Your task to perform on an android device: Open the calendar app, open the side menu, and click the "Day" option Image 0: 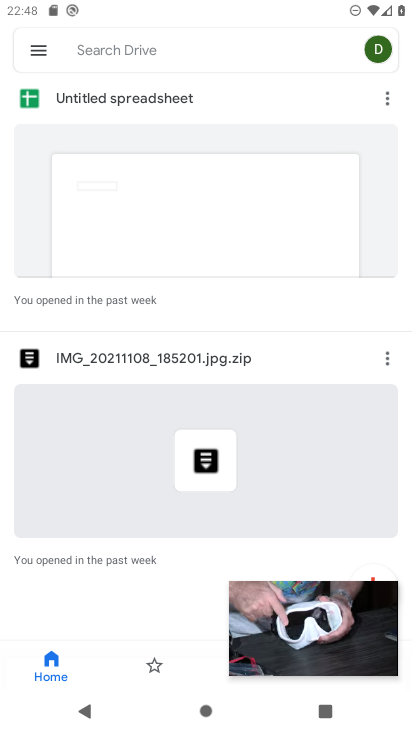
Step 0: press home button
Your task to perform on an android device: Open the calendar app, open the side menu, and click the "Day" option Image 1: 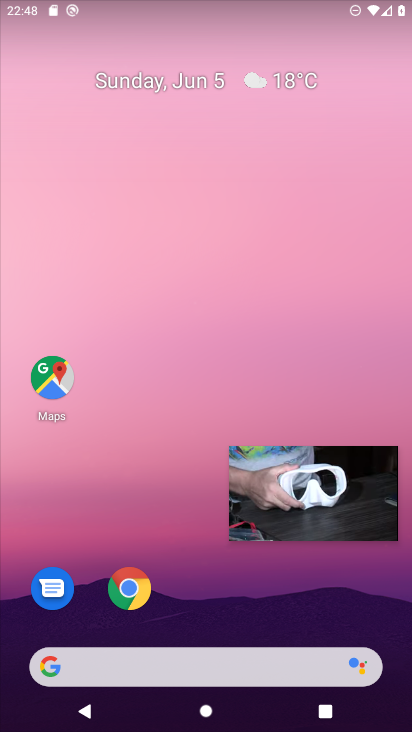
Step 1: drag from (269, 601) to (311, 74)
Your task to perform on an android device: Open the calendar app, open the side menu, and click the "Day" option Image 2: 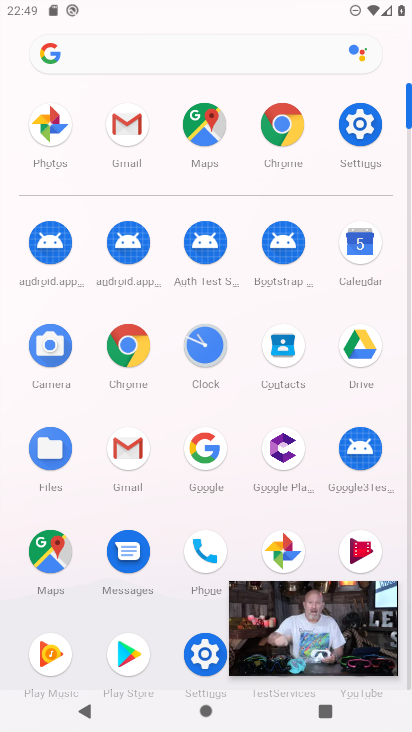
Step 2: click (359, 251)
Your task to perform on an android device: Open the calendar app, open the side menu, and click the "Day" option Image 3: 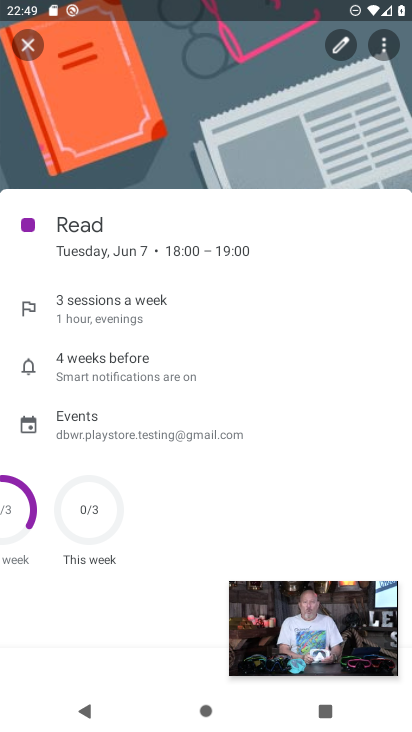
Step 3: press back button
Your task to perform on an android device: Open the calendar app, open the side menu, and click the "Day" option Image 4: 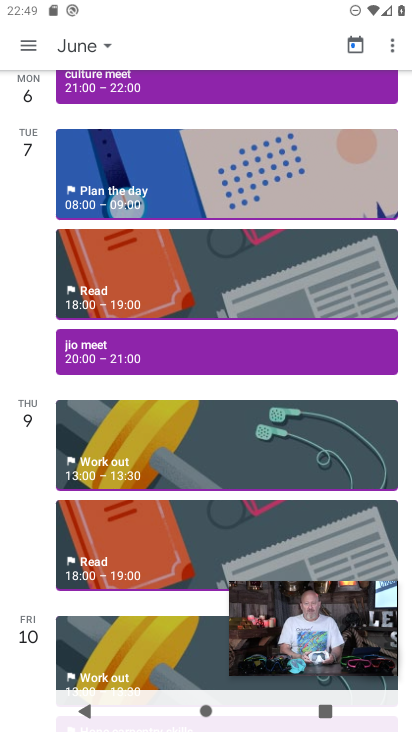
Step 4: click (23, 49)
Your task to perform on an android device: Open the calendar app, open the side menu, and click the "Day" option Image 5: 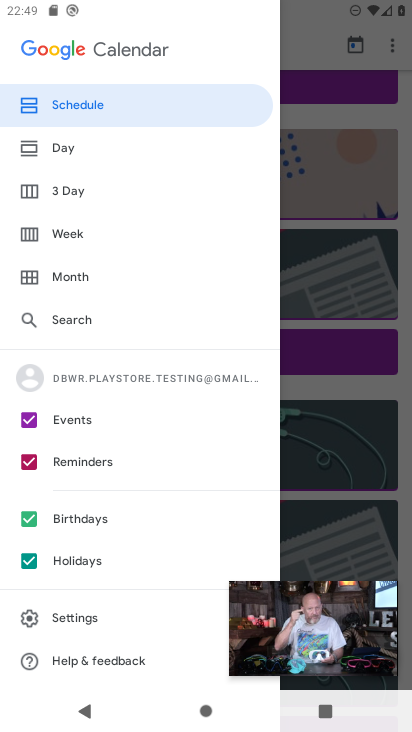
Step 5: click (81, 155)
Your task to perform on an android device: Open the calendar app, open the side menu, and click the "Day" option Image 6: 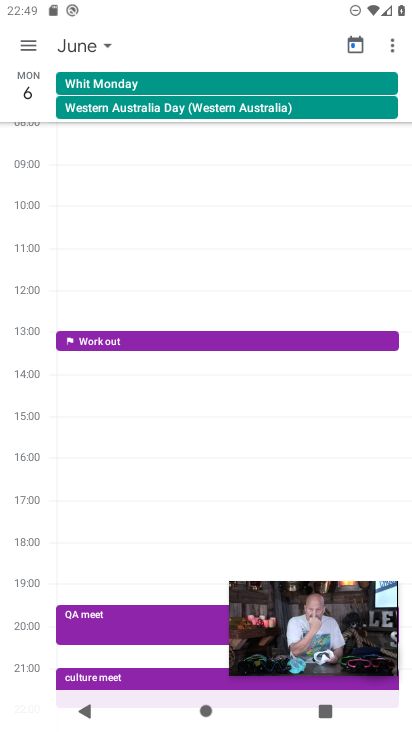
Step 6: task complete